Your task to perform on an android device: Open privacy settings Image 0: 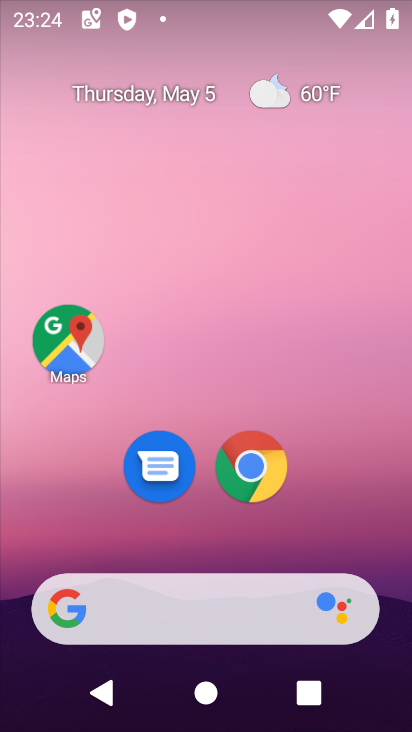
Step 0: click (257, 470)
Your task to perform on an android device: Open privacy settings Image 1: 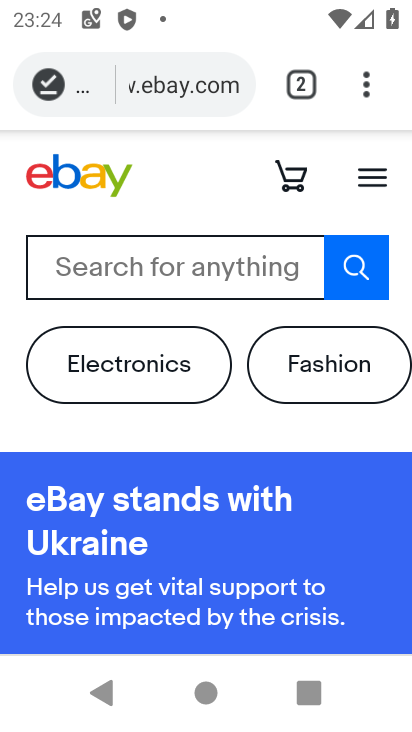
Step 1: click (363, 74)
Your task to perform on an android device: Open privacy settings Image 2: 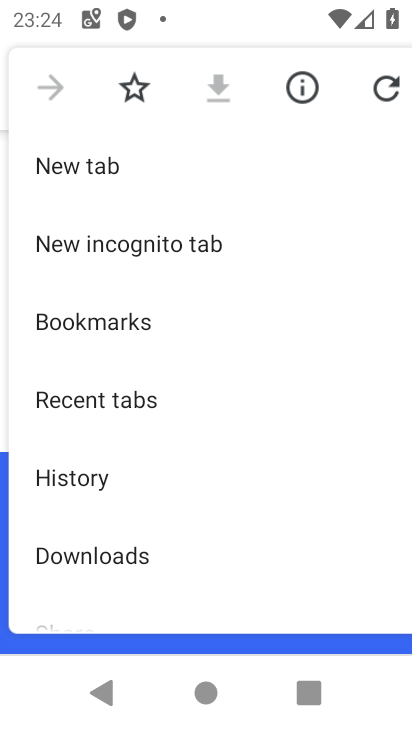
Step 2: drag from (70, 571) to (135, 269)
Your task to perform on an android device: Open privacy settings Image 3: 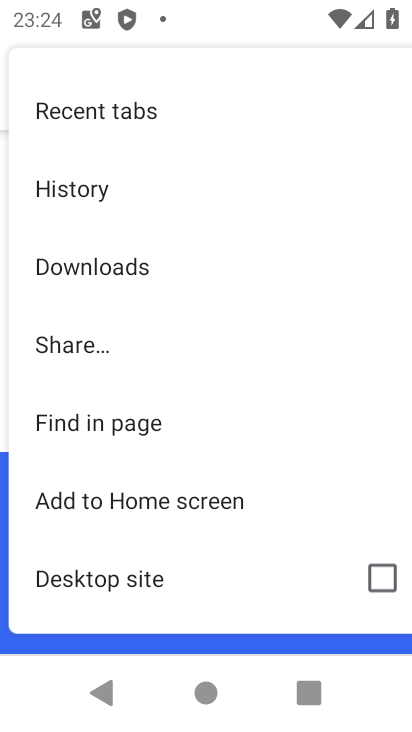
Step 3: press home button
Your task to perform on an android device: Open privacy settings Image 4: 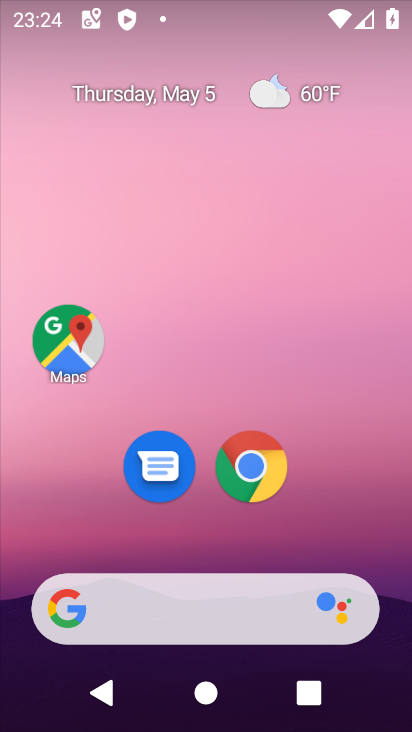
Step 4: drag from (146, 561) to (222, 177)
Your task to perform on an android device: Open privacy settings Image 5: 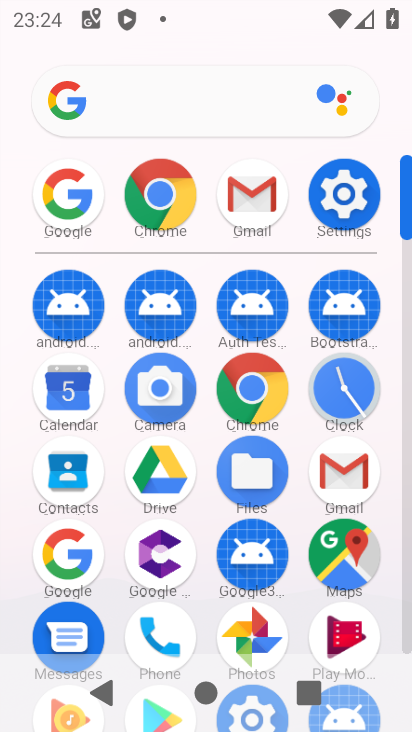
Step 5: click (337, 204)
Your task to perform on an android device: Open privacy settings Image 6: 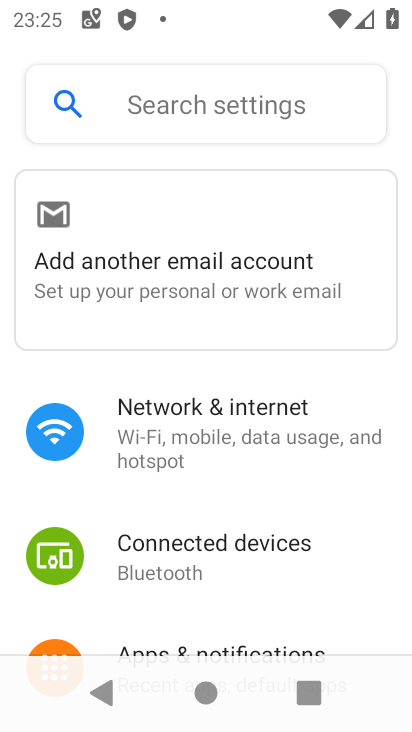
Step 6: drag from (187, 607) to (209, 290)
Your task to perform on an android device: Open privacy settings Image 7: 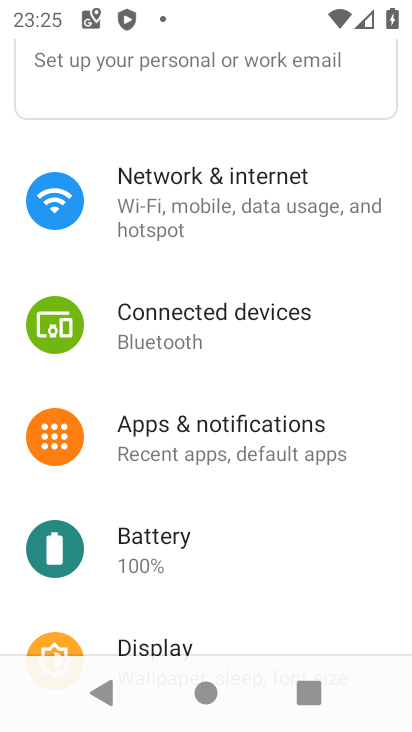
Step 7: drag from (220, 640) to (294, 305)
Your task to perform on an android device: Open privacy settings Image 8: 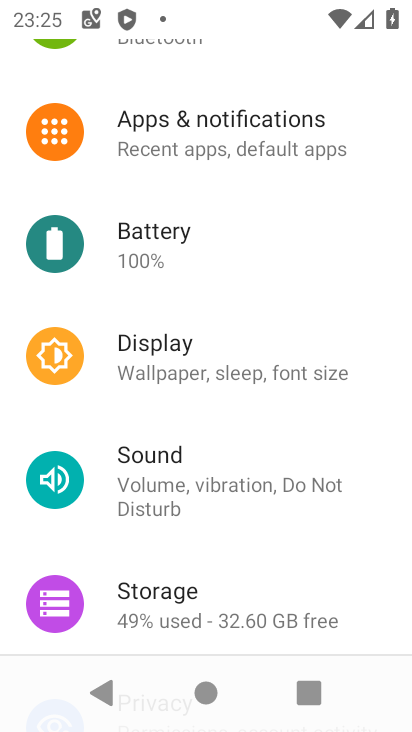
Step 8: drag from (202, 631) to (232, 291)
Your task to perform on an android device: Open privacy settings Image 9: 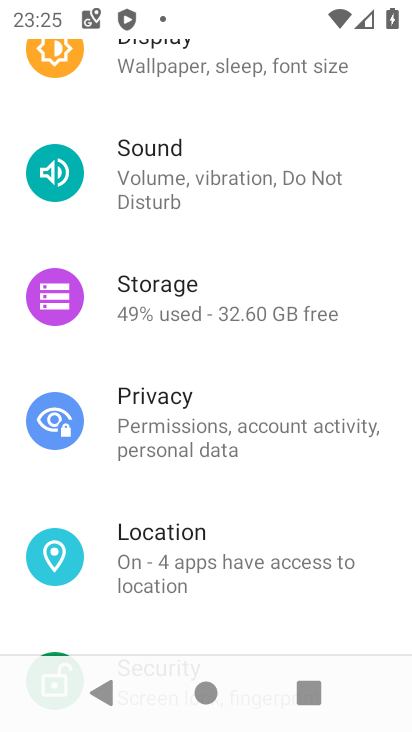
Step 9: click (178, 437)
Your task to perform on an android device: Open privacy settings Image 10: 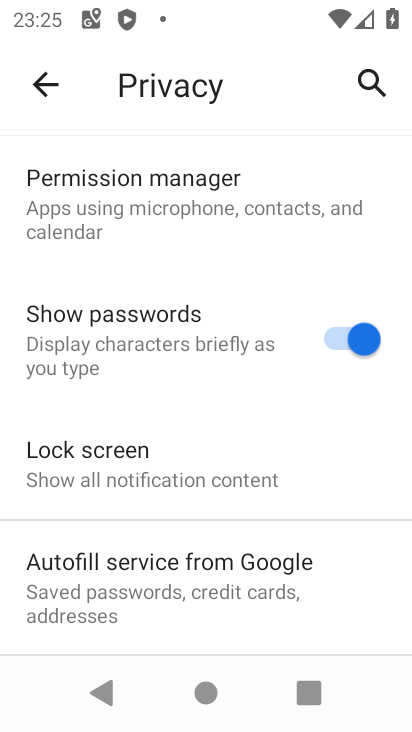
Step 10: drag from (150, 600) to (183, 314)
Your task to perform on an android device: Open privacy settings Image 11: 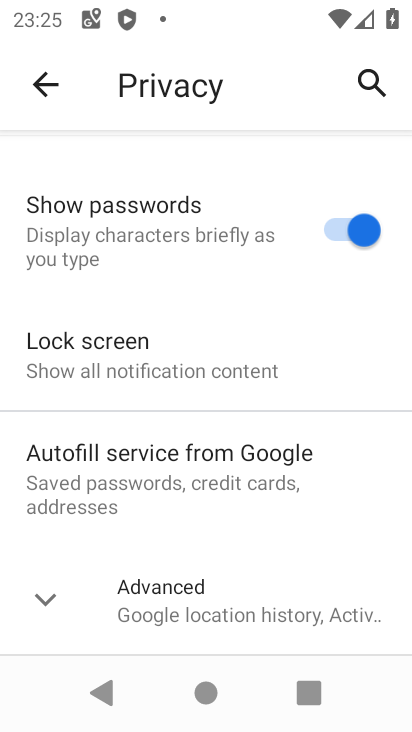
Step 11: click (181, 610)
Your task to perform on an android device: Open privacy settings Image 12: 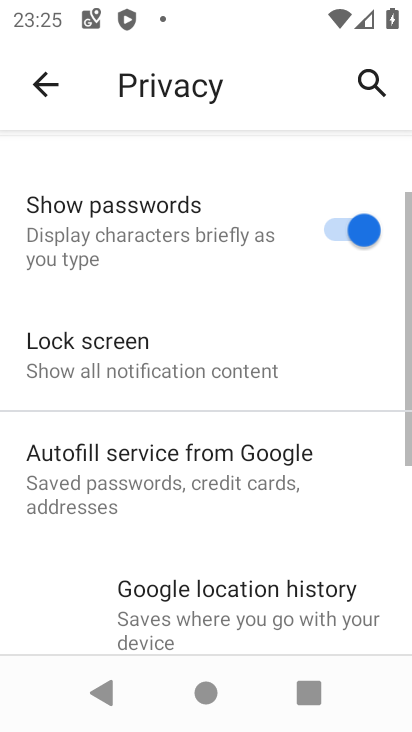
Step 12: task complete